Your task to perform on an android device: check android version Image 0: 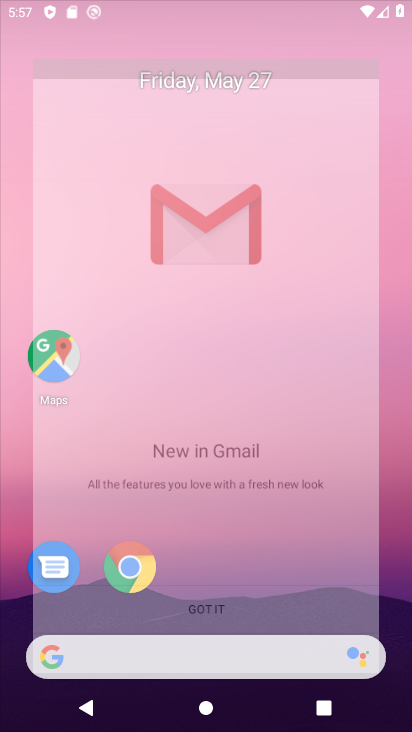
Step 0: click (139, 580)
Your task to perform on an android device: check android version Image 1: 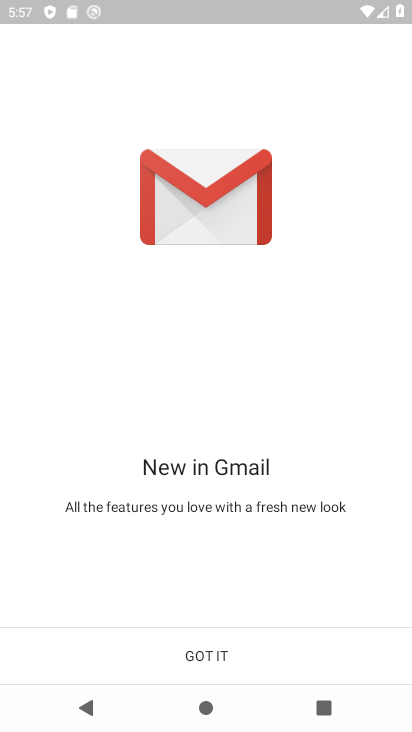
Step 1: press home button
Your task to perform on an android device: check android version Image 2: 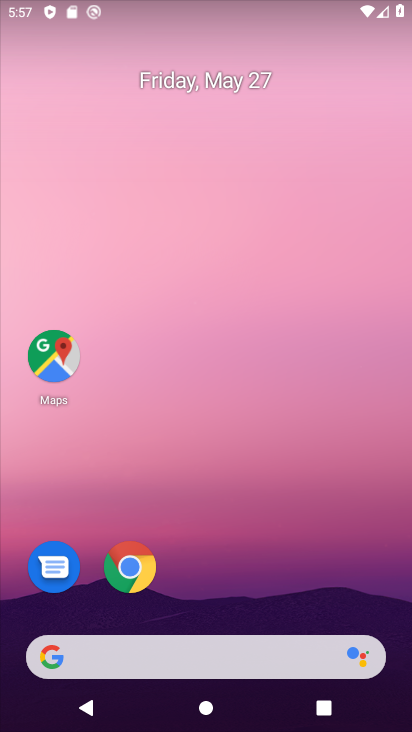
Step 2: drag from (255, 602) to (354, 132)
Your task to perform on an android device: check android version Image 3: 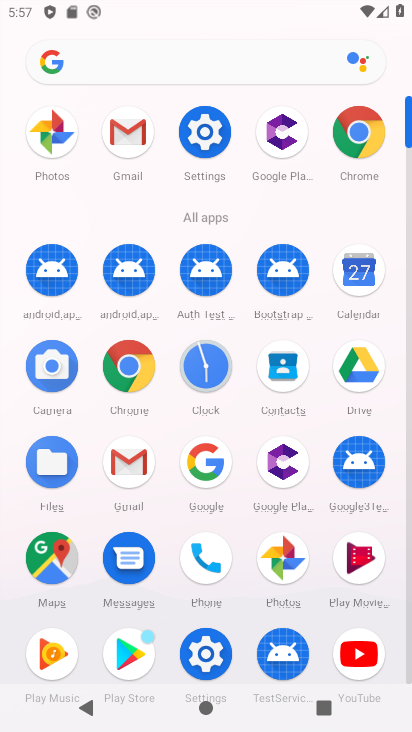
Step 3: click (203, 131)
Your task to perform on an android device: check android version Image 4: 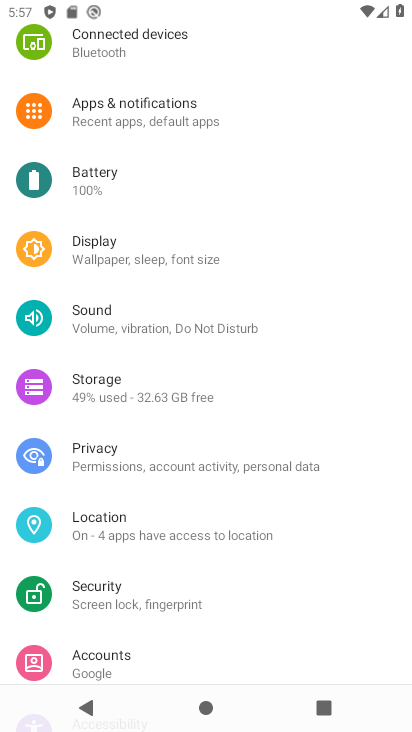
Step 4: drag from (117, 640) to (186, 348)
Your task to perform on an android device: check android version Image 5: 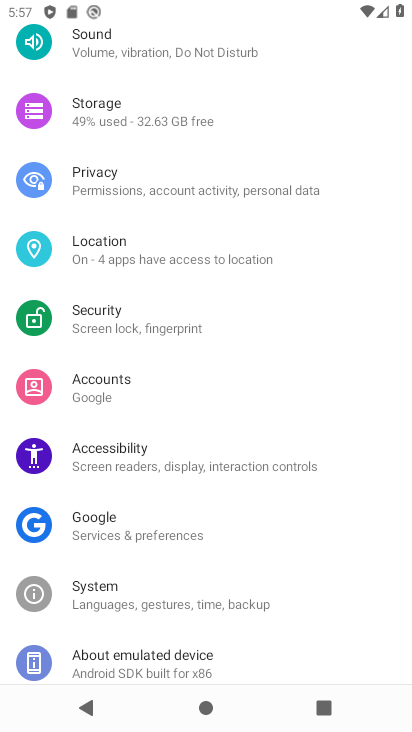
Step 5: click (121, 665)
Your task to perform on an android device: check android version Image 6: 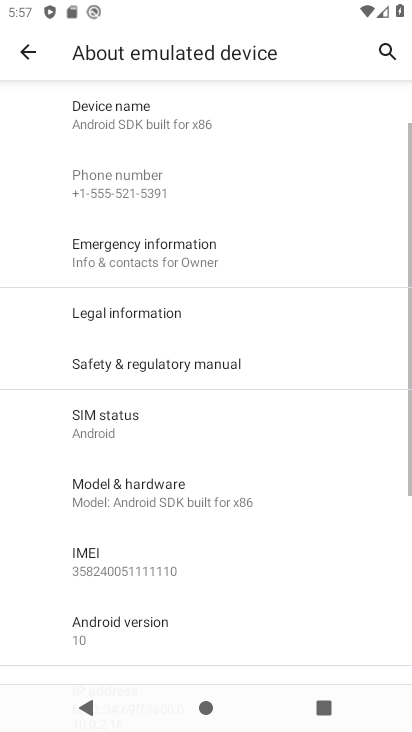
Step 6: click (118, 631)
Your task to perform on an android device: check android version Image 7: 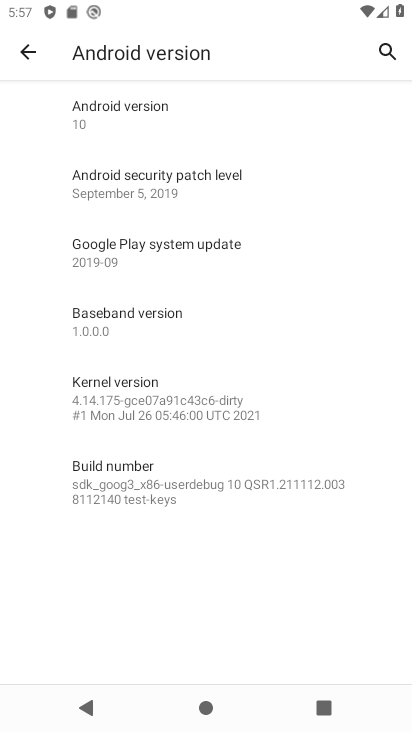
Step 7: task complete